Your task to perform on an android device: check out phone information Image 0: 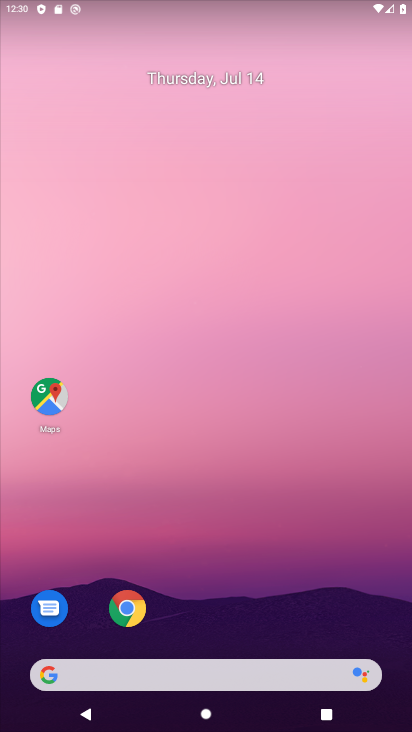
Step 0: drag from (221, 631) to (222, 155)
Your task to perform on an android device: check out phone information Image 1: 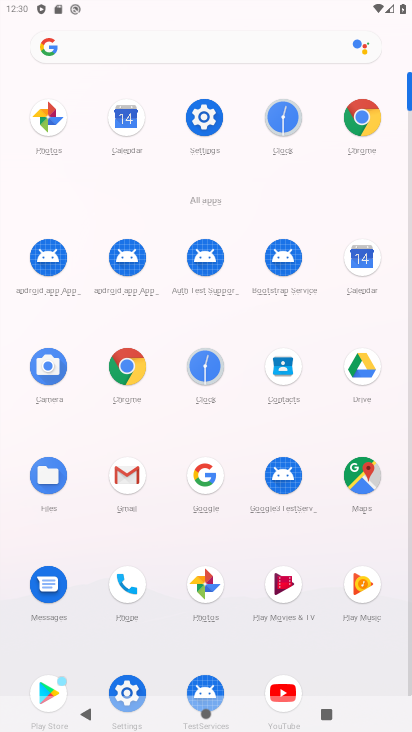
Step 1: click (205, 105)
Your task to perform on an android device: check out phone information Image 2: 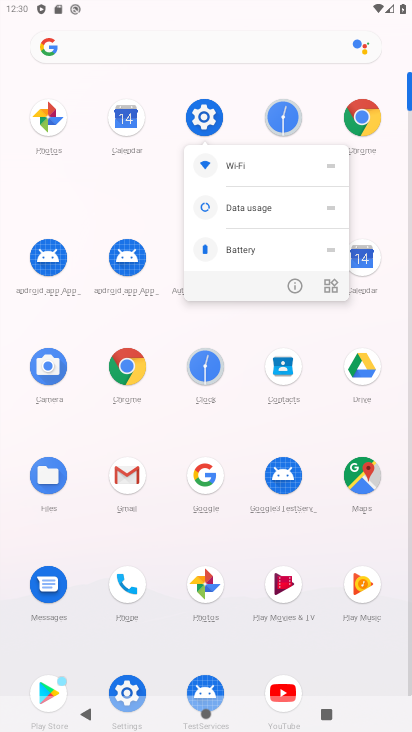
Step 2: click (288, 283)
Your task to perform on an android device: check out phone information Image 3: 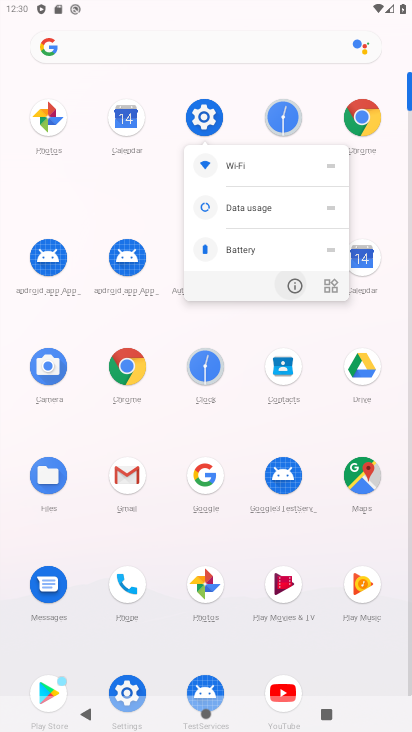
Step 3: click (288, 283)
Your task to perform on an android device: check out phone information Image 4: 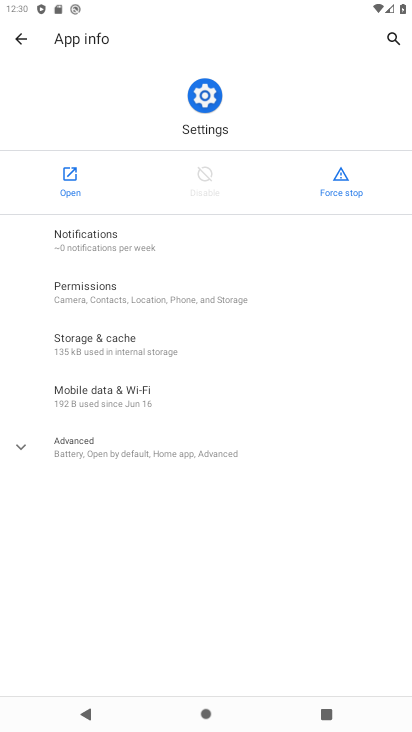
Step 4: drag from (277, 451) to (253, 68)
Your task to perform on an android device: check out phone information Image 5: 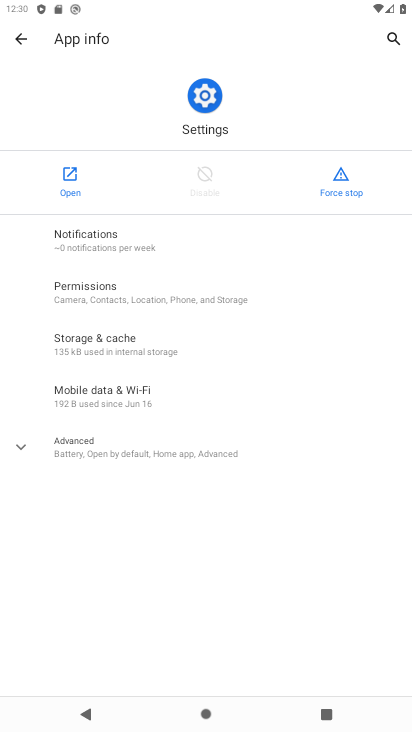
Step 5: click (73, 185)
Your task to perform on an android device: check out phone information Image 6: 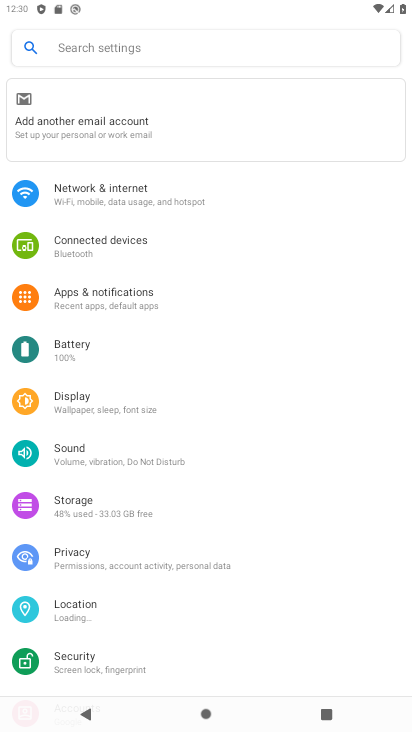
Step 6: drag from (248, 336) to (287, 5)
Your task to perform on an android device: check out phone information Image 7: 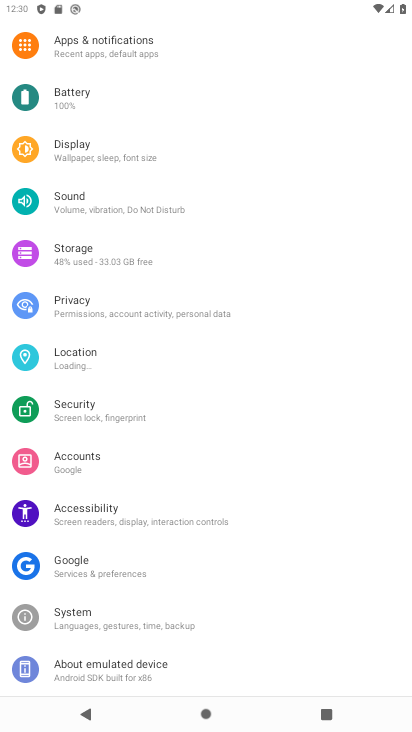
Step 7: drag from (173, 606) to (251, 50)
Your task to perform on an android device: check out phone information Image 8: 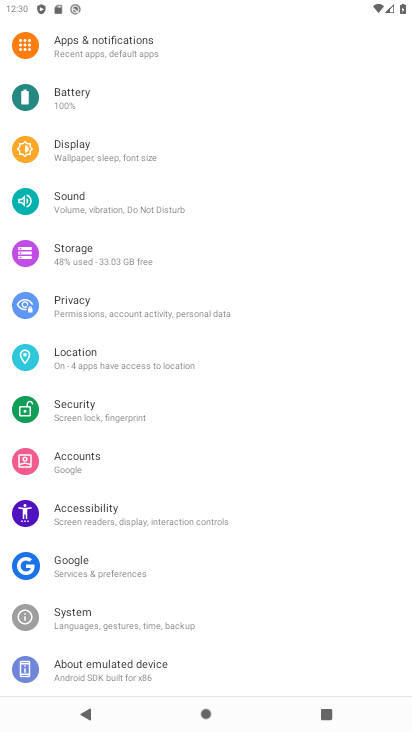
Step 8: click (123, 667)
Your task to perform on an android device: check out phone information Image 9: 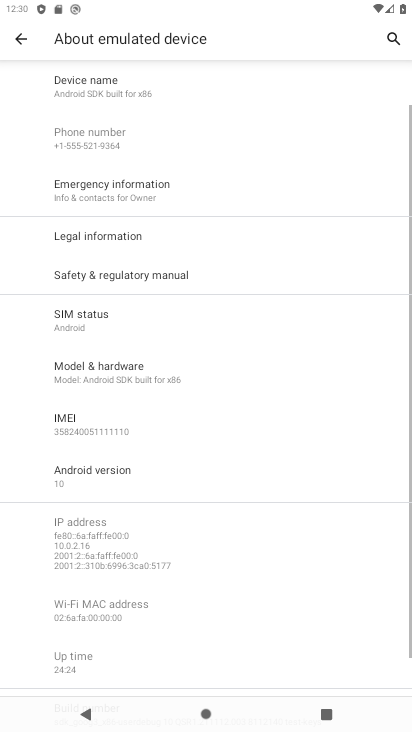
Step 9: drag from (140, 595) to (203, 168)
Your task to perform on an android device: check out phone information Image 10: 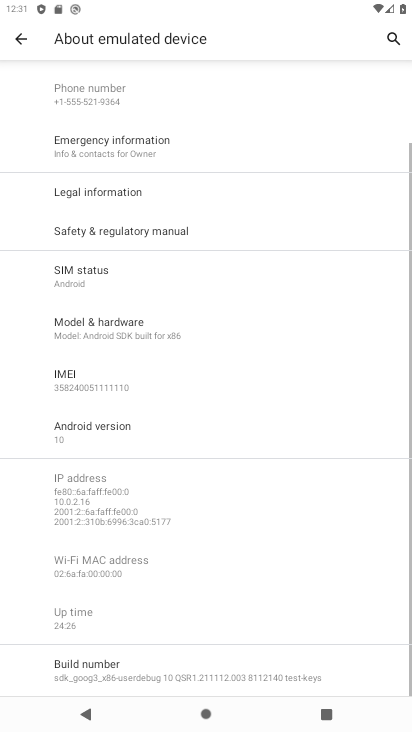
Step 10: click (131, 674)
Your task to perform on an android device: check out phone information Image 11: 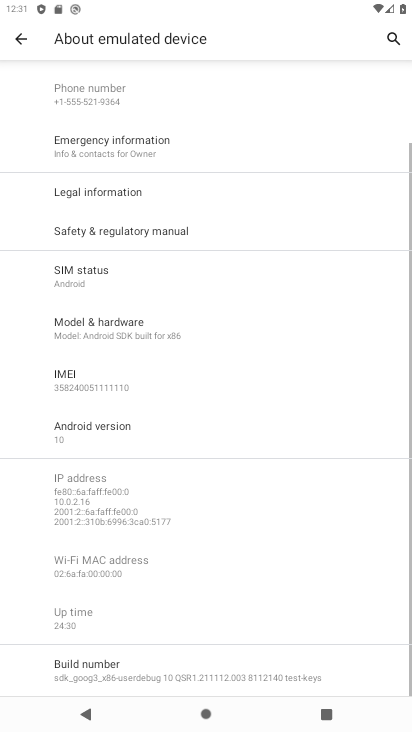
Step 11: task complete